Your task to perform on an android device: turn on wifi Image 0: 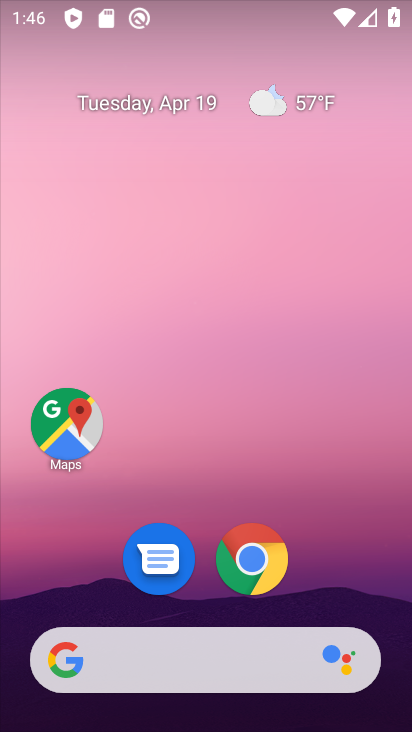
Step 0: drag from (212, 597) to (228, 164)
Your task to perform on an android device: turn on wifi Image 1: 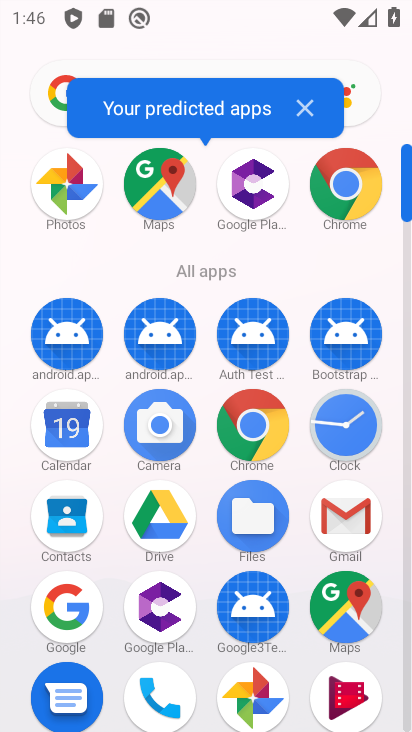
Step 1: drag from (209, 472) to (199, 82)
Your task to perform on an android device: turn on wifi Image 2: 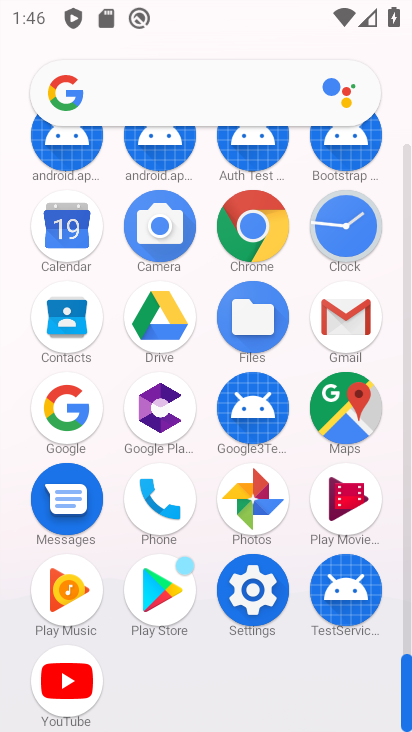
Step 2: click (261, 574)
Your task to perform on an android device: turn on wifi Image 3: 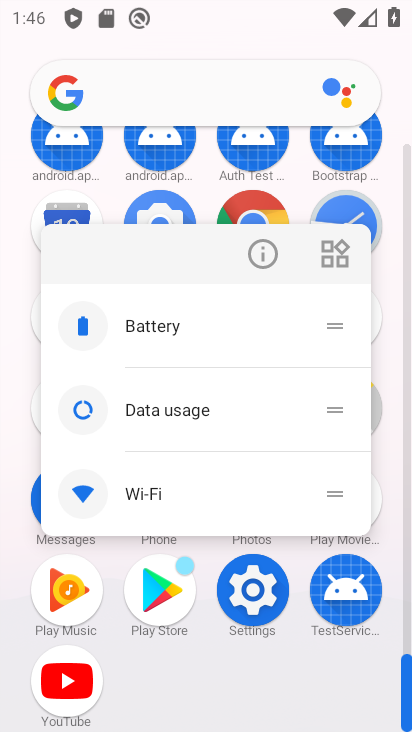
Step 3: click (251, 583)
Your task to perform on an android device: turn on wifi Image 4: 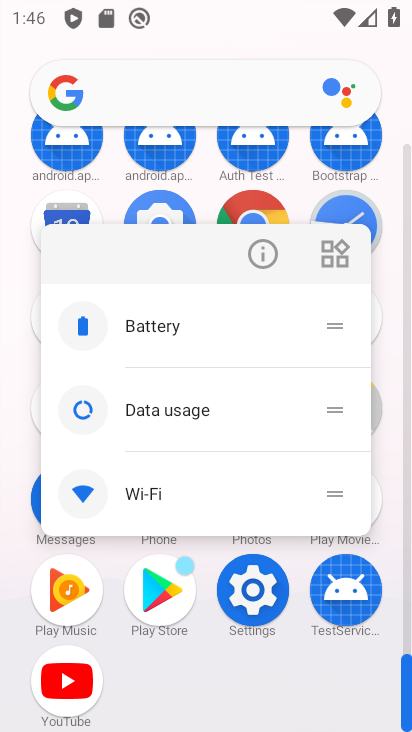
Step 4: click (252, 583)
Your task to perform on an android device: turn on wifi Image 5: 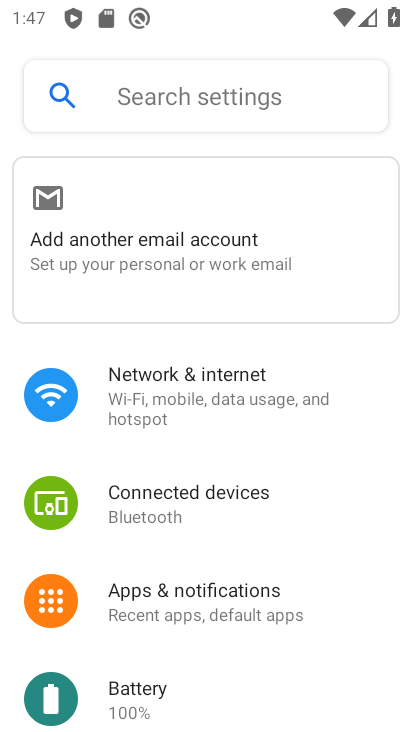
Step 5: click (191, 408)
Your task to perform on an android device: turn on wifi Image 6: 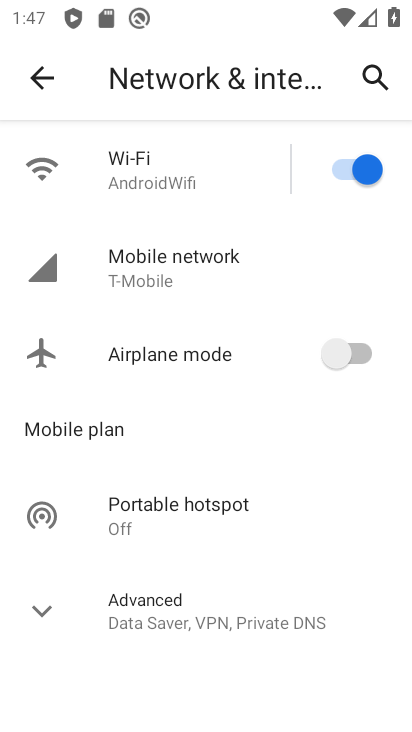
Step 6: click (226, 178)
Your task to perform on an android device: turn on wifi Image 7: 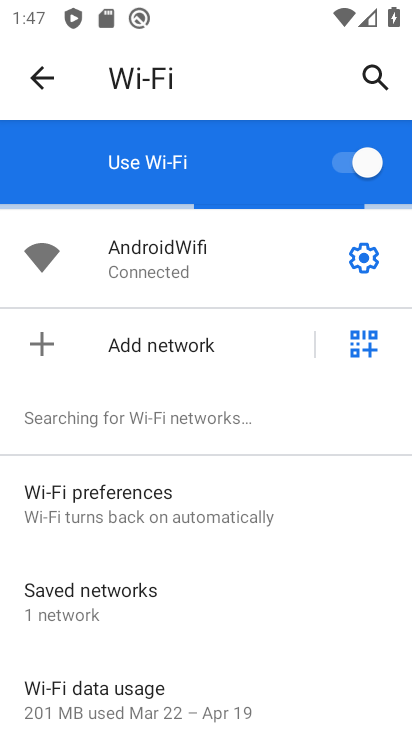
Step 7: task complete